Your task to perform on an android device: check battery use Image 0: 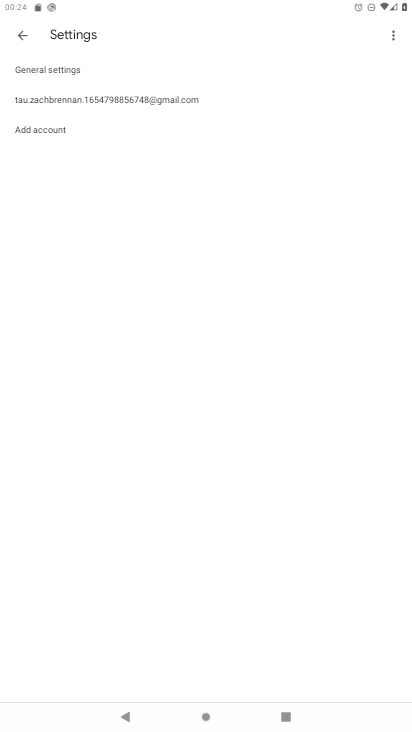
Step 0: drag from (189, 453) to (238, 102)
Your task to perform on an android device: check battery use Image 1: 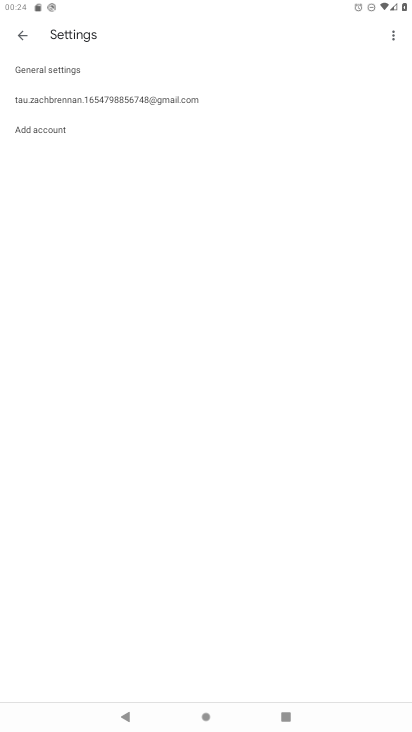
Step 1: press home button
Your task to perform on an android device: check battery use Image 2: 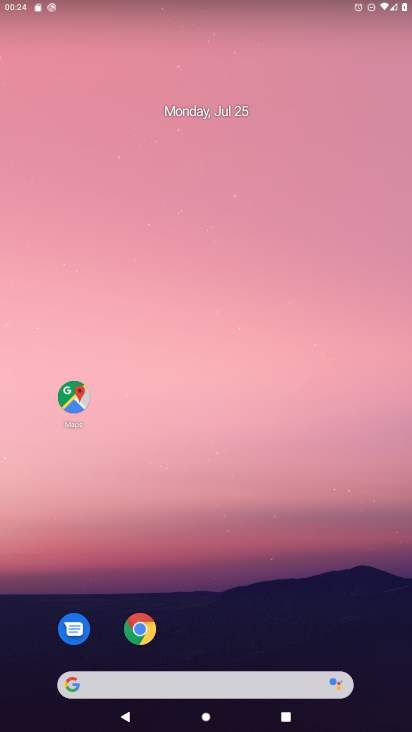
Step 2: drag from (179, 632) to (378, 351)
Your task to perform on an android device: check battery use Image 3: 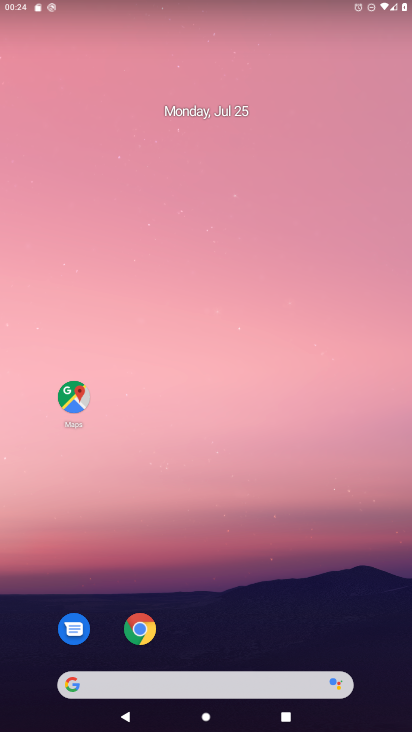
Step 3: drag from (192, 645) to (93, 26)
Your task to perform on an android device: check battery use Image 4: 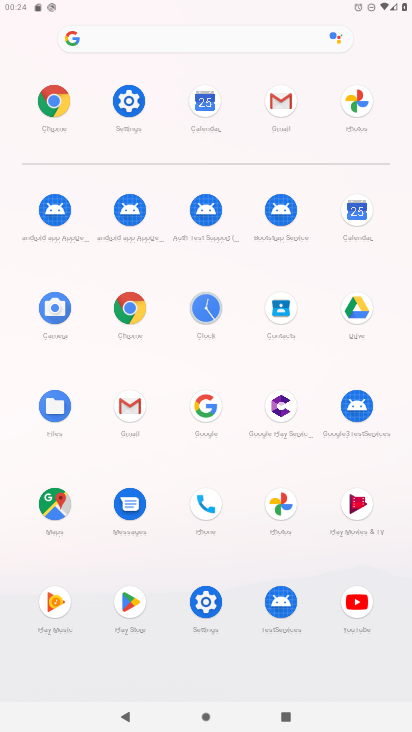
Step 4: click (203, 604)
Your task to perform on an android device: check battery use Image 5: 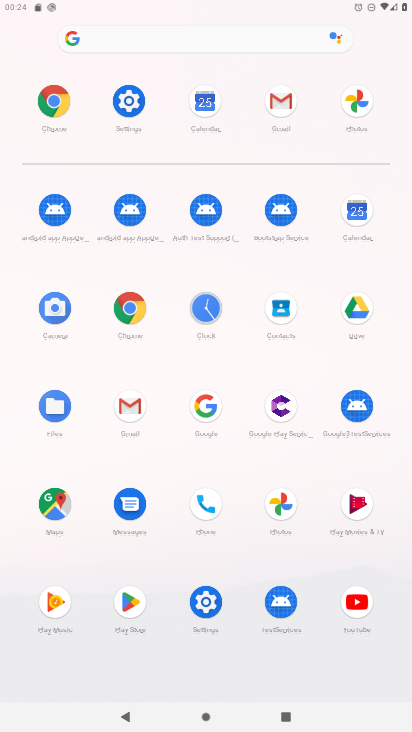
Step 5: click (203, 604)
Your task to perform on an android device: check battery use Image 6: 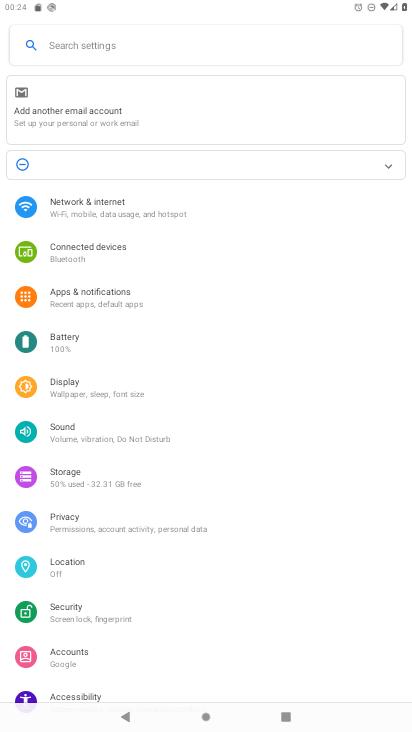
Step 6: click (64, 345)
Your task to perform on an android device: check battery use Image 7: 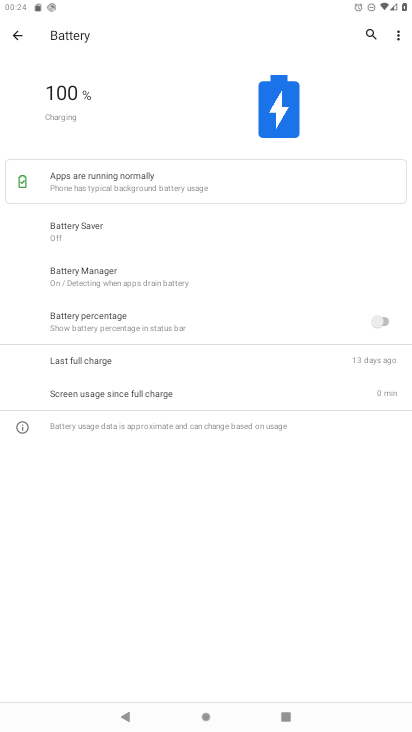
Step 7: click (83, 334)
Your task to perform on an android device: check battery use Image 8: 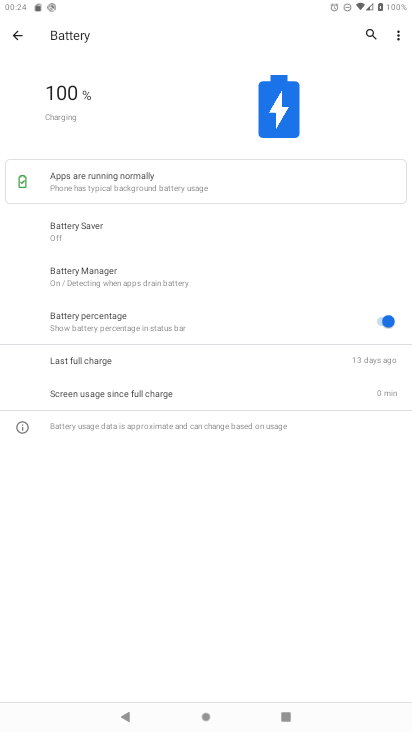
Step 8: drag from (150, 344) to (213, 36)
Your task to perform on an android device: check battery use Image 9: 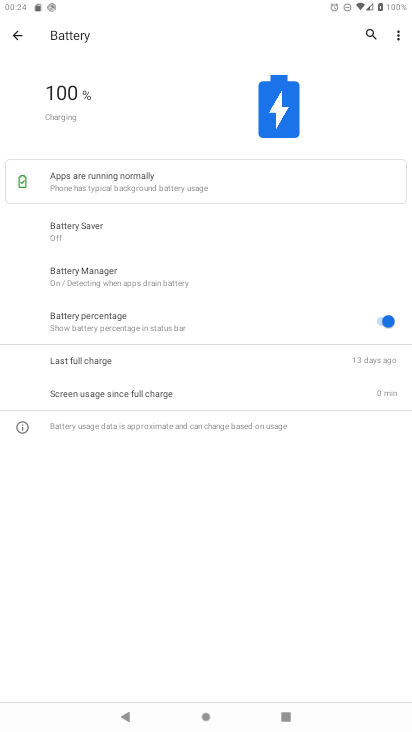
Step 9: click (394, 31)
Your task to perform on an android device: check battery use Image 10: 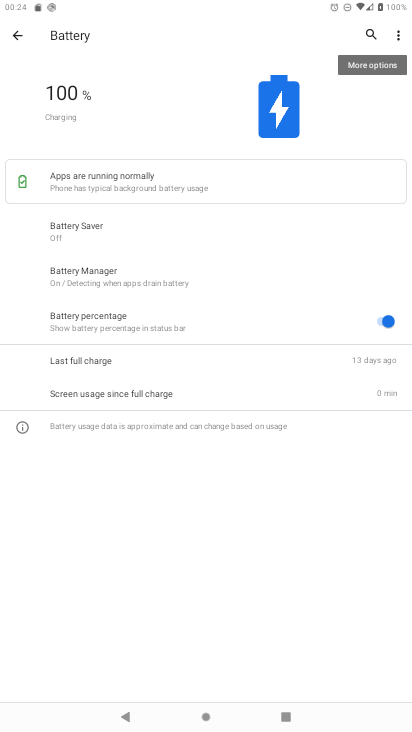
Step 10: click (396, 41)
Your task to perform on an android device: check battery use Image 11: 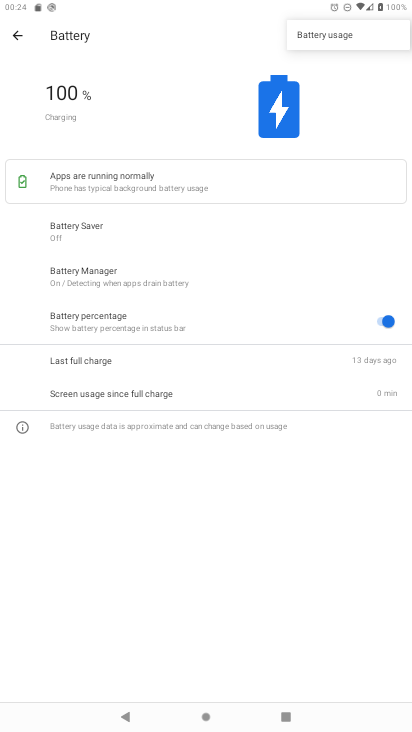
Step 11: click (326, 33)
Your task to perform on an android device: check battery use Image 12: 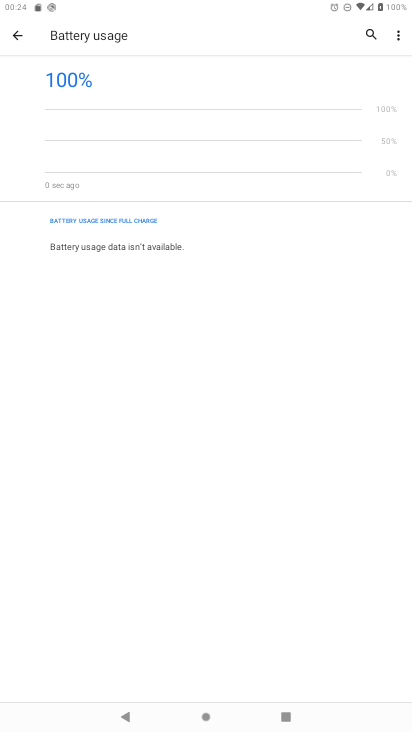
Step 12: drag from (218, 434) to (289, 126)
Your task to perform on an android device: check battery use Image 13: 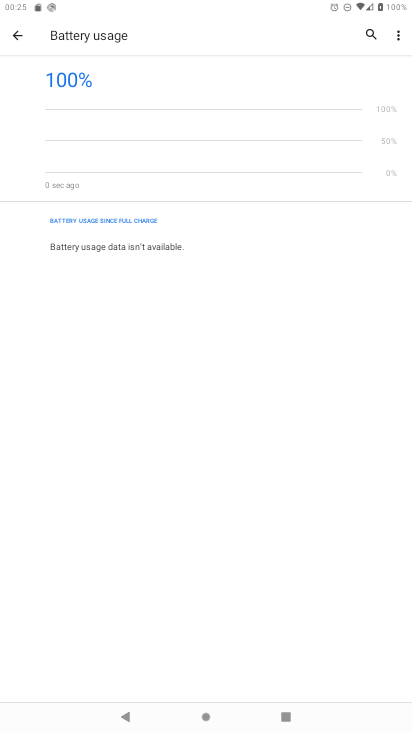
Step 13: click (401, 32)
Your task to perform on an android device: check battery use Image 14: 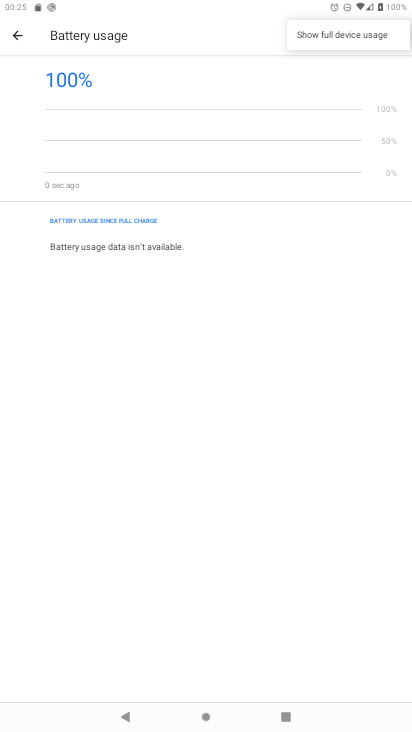
Step 14: task complete